Your task to perform on an android device: Go to Google Image 0: 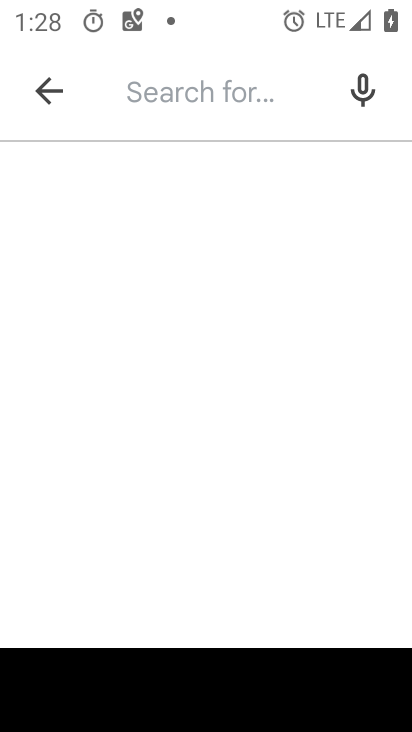
Step 0: press home button
Your task to perform on an android device: Go to Google Image 1: 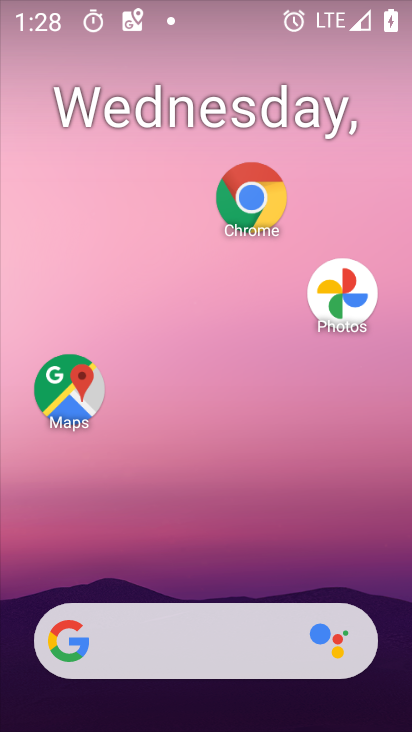
Step 1: drag from (136, 596) to (136, 101)
Your task to perform on an android device: Go to Google Image 2: 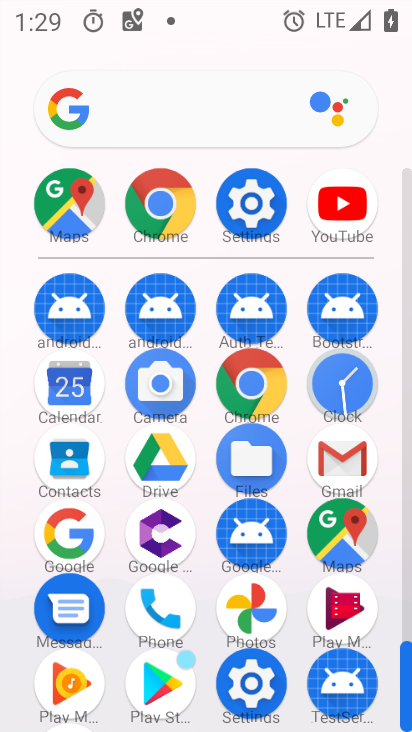
Step 2: drag from (215, 446) to (143, 77)
Your task to perform on an android device: Go to Google Image 3: 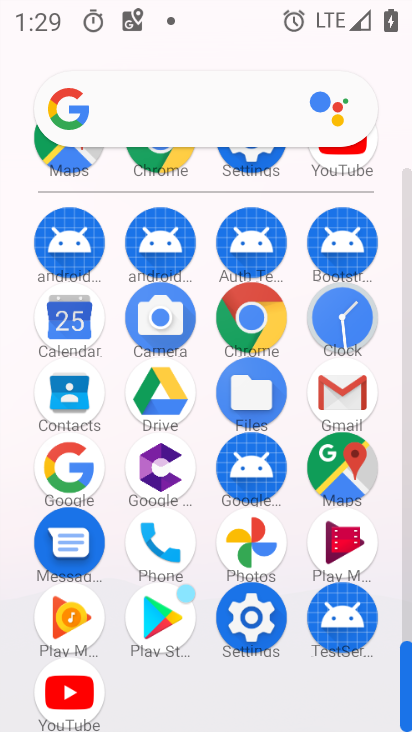
Step 3: click (50, 475)
Your task to perform on an android device: Go to Google Image 4: 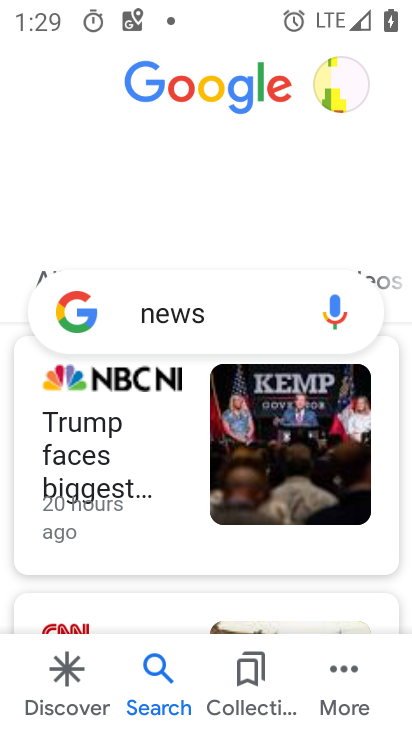
Step 4: task complete